Your task to perform on an android device: Go to location settings Image 0: 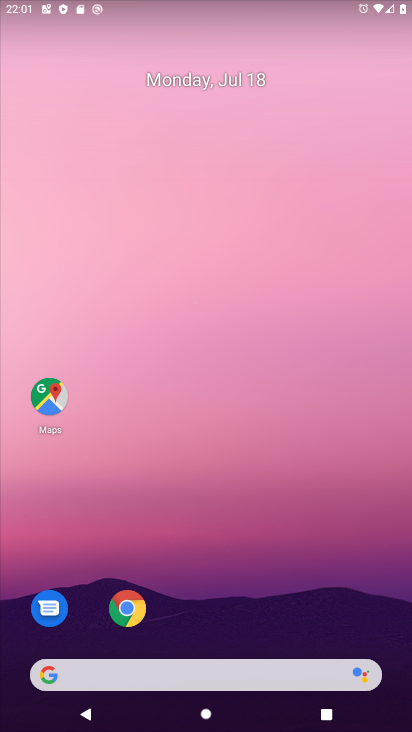
Step 0: drag from (90, 618) to (311, 80)
Your task to perform on an android device: Go to location settings Image 1: 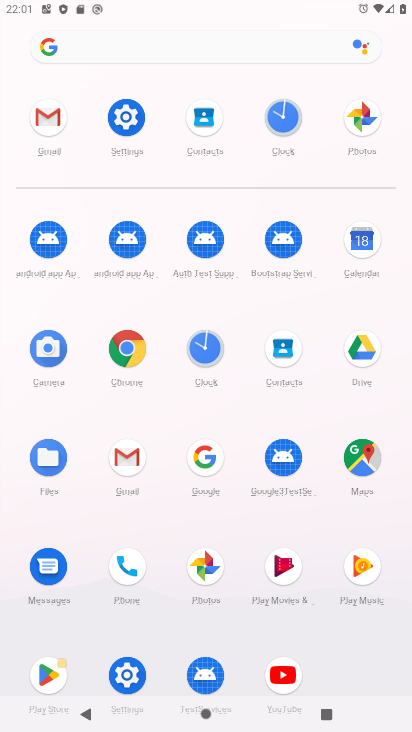
Step 1: click (129, 682)
Your task to perform on an android device: Go to location settings Image 2: 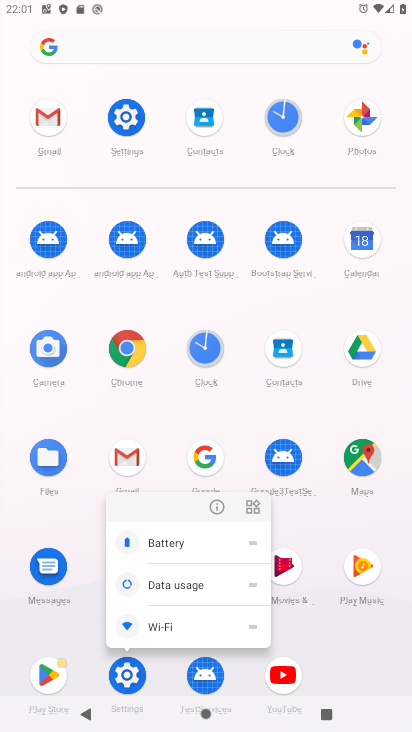
Step 2: click (123, 660)
Your task to perform on an android device: Go to location settings Image 3: 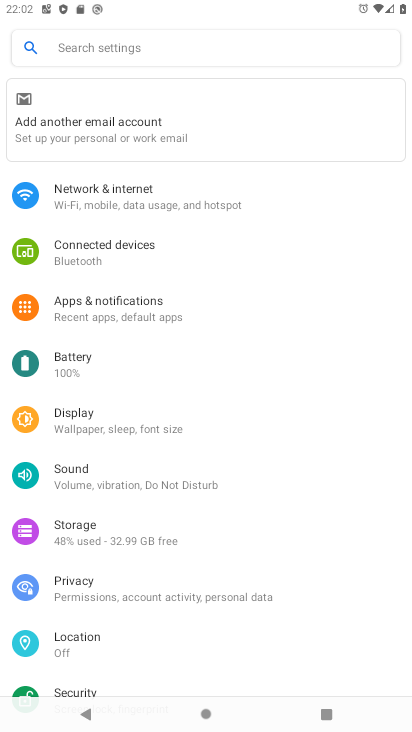
Step 3: click (80, 648)
Your task to perform on an android device: Go to location settings Image 4: 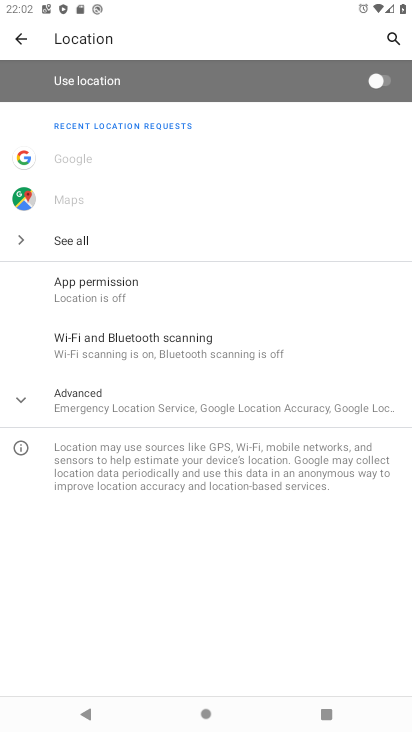
Step 4: task complete